Your task to perform on an android device: snooze an email in the gmail app Image 0: 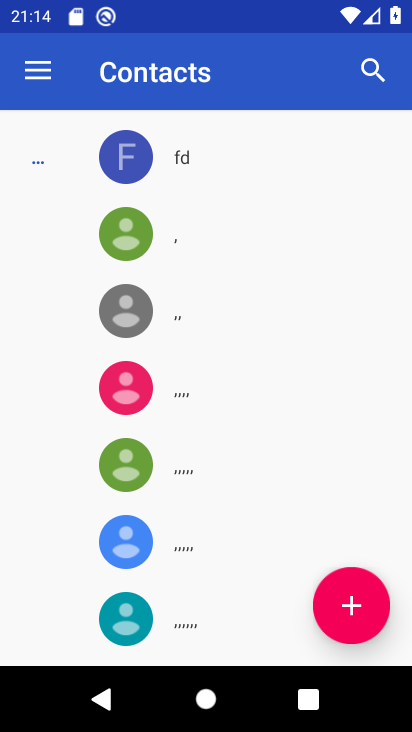
Step 0: press home button
Your task to perform on an android device: snooze an email in the gmail app Image 1: 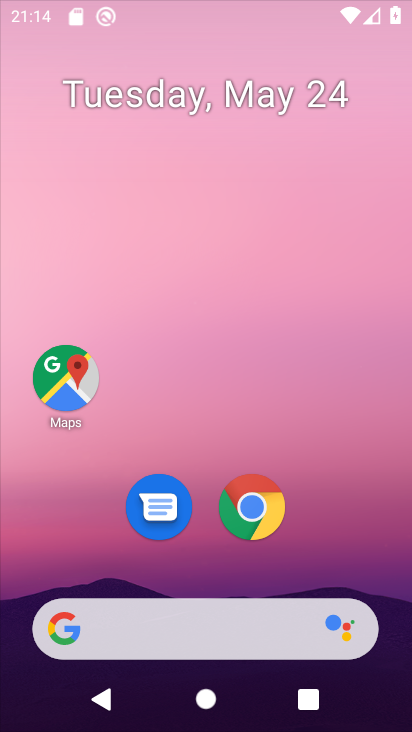
Step 1: drag from (230, 575) to (289, 214)
Your task to perform on an android device: snooze an email in the gmail app Image 2: 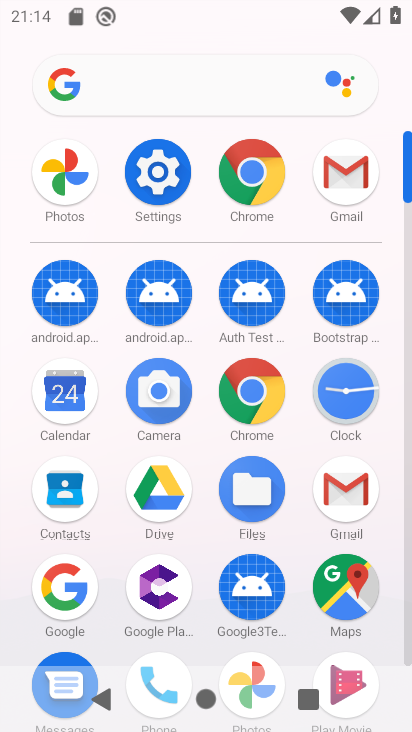
Step 2: click (358, 164)
Your task to perform on an android device: snooze an email in the gmail app Image 3: 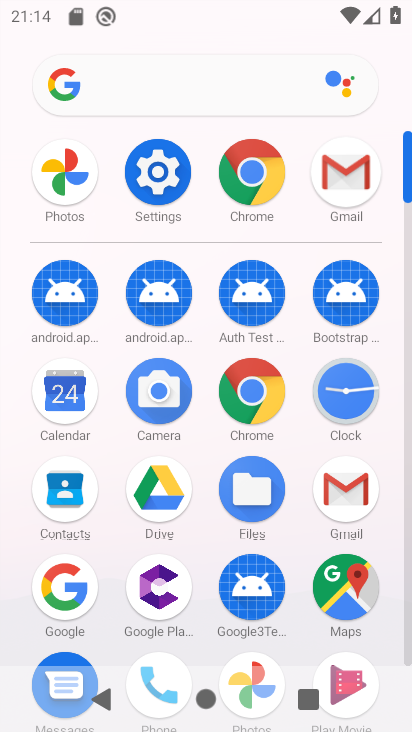
Step 3: click (358, 164)
Your task to perform on an android device: snooze an email in the gmail app Image 4: 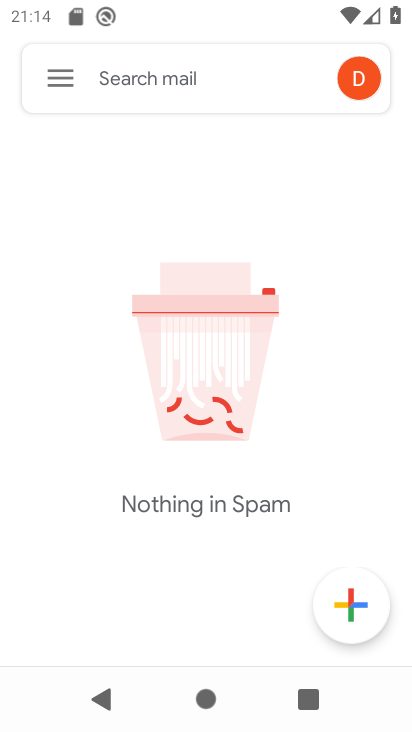
Step 4: click (72, 65)
Your task to perform on an android device: snooze an email in the gmail app Image 5: 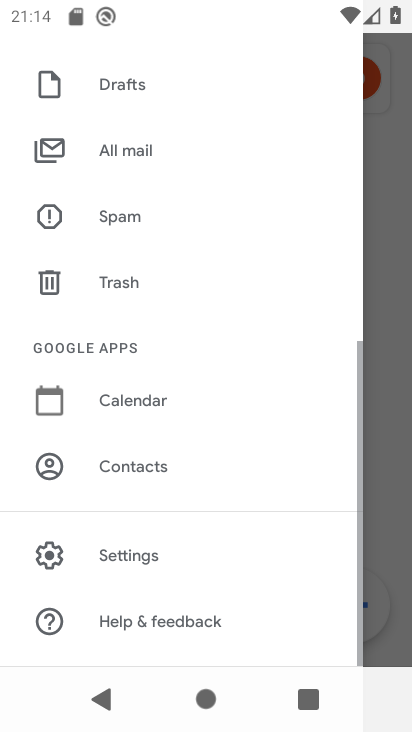
Step 5: drag from (142, 103) to (301, 712)
Your task to perform on an android device: snooze an email in the gmail app Image 6: 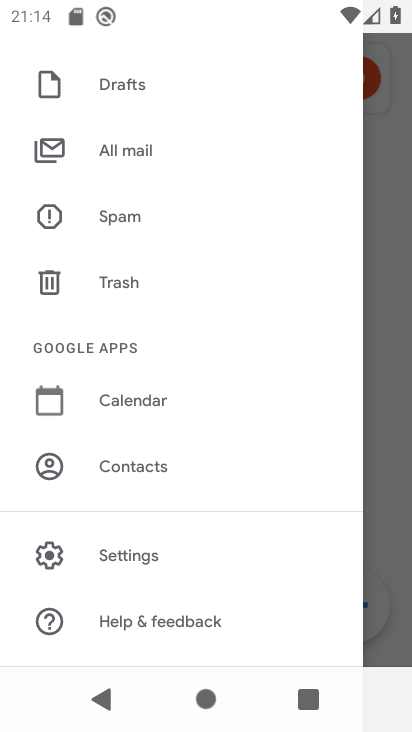
Step 6: drag from (165, 112) to (193, 581)
Your task to perform on an android device: snooze an email in the gmail app Image 7: 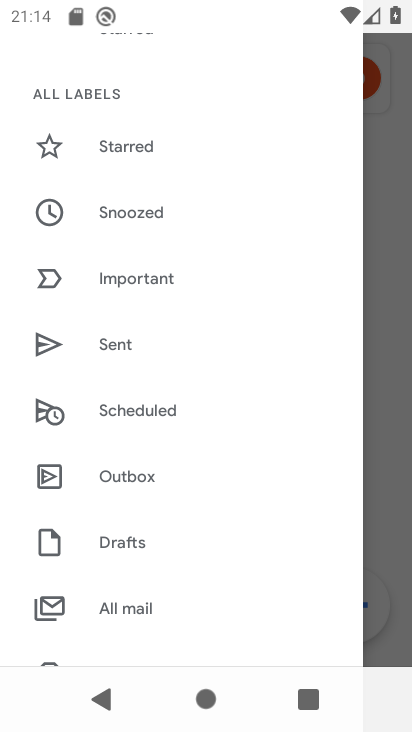
Step 7: click (112, 199)
Your task to perform on an android device: snooze an email in the gmail app Image 8: 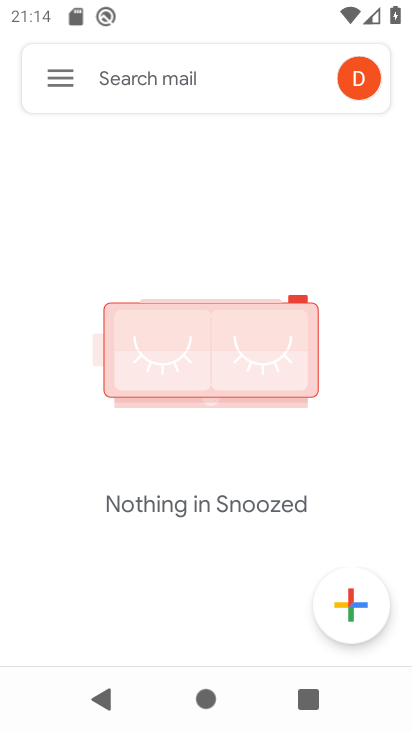
Step 8: task complete